Your task to perform on an android device: turn pop-ups off in chrome Image 0: 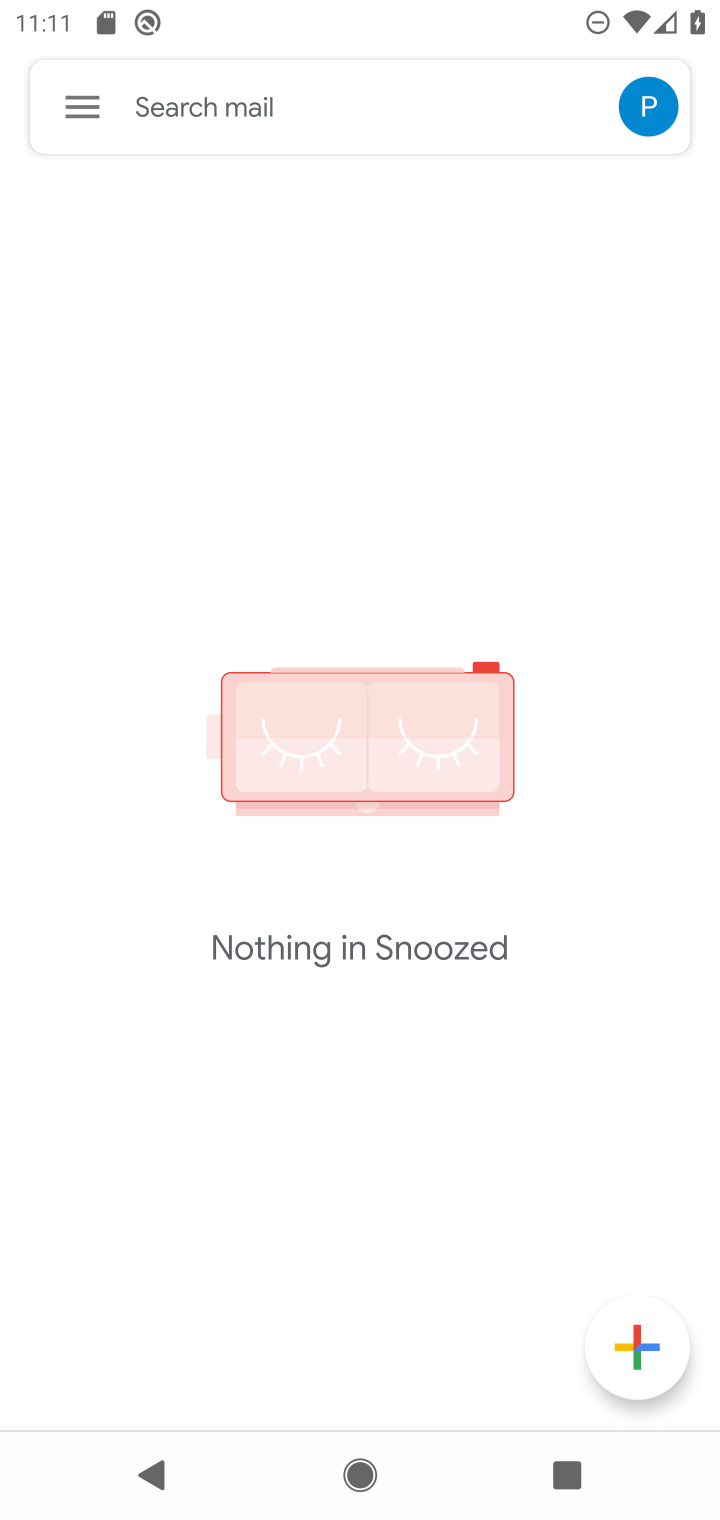
Step 0: press home button
Your task to perform on an android device: turn pop-ups off in chrome Image 1: 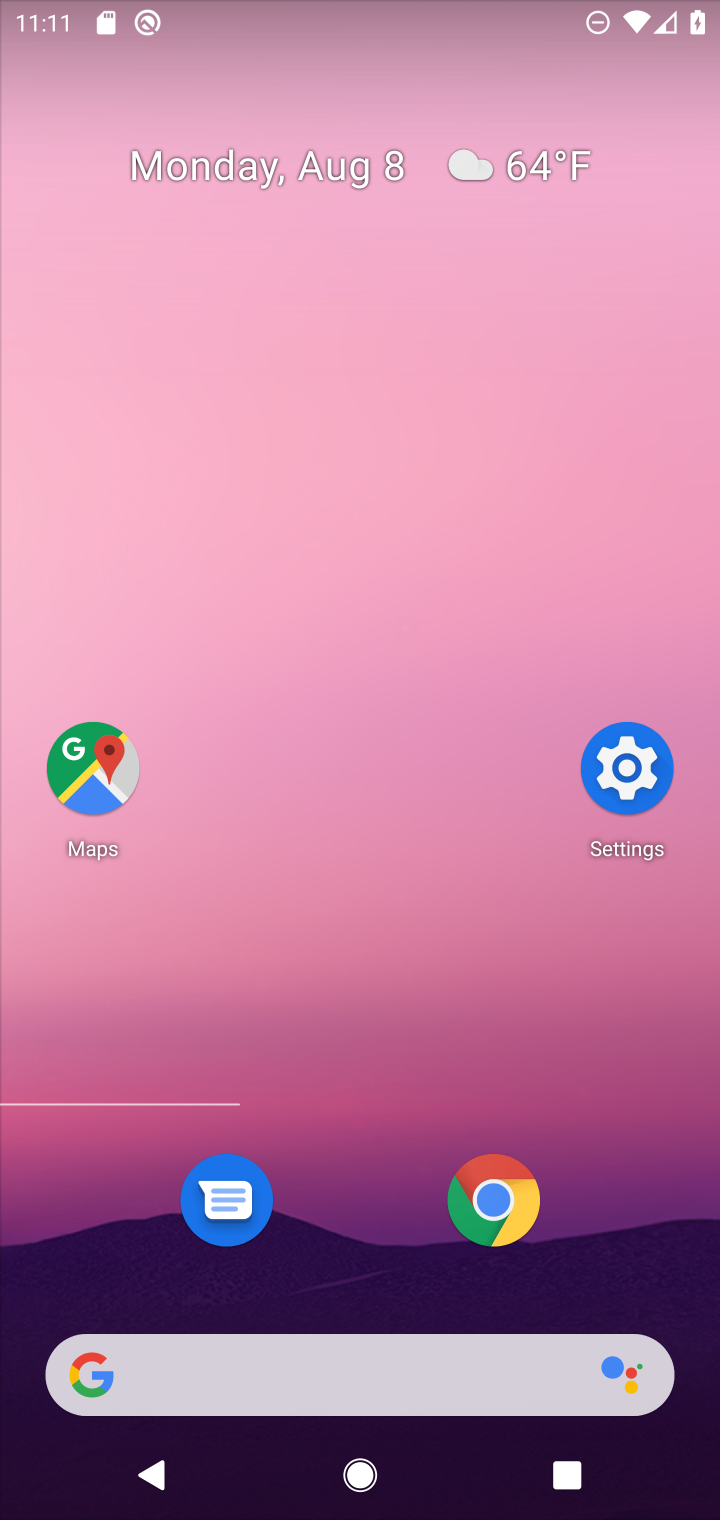
Step 1: click (491, 1190)
Your task to perform on an android device: turn pop-ups off in chrome Image 2: 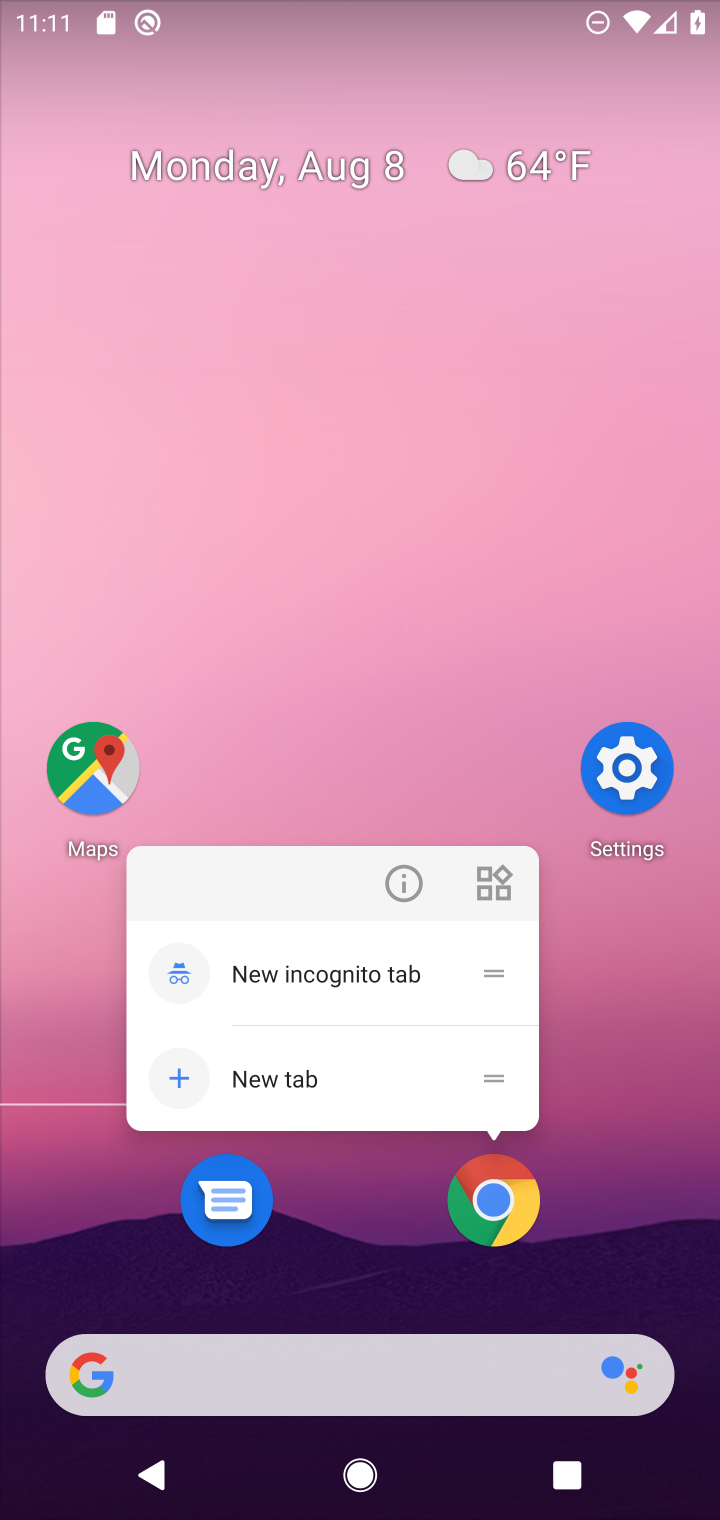
Step 2: click (491, 1197)
Your task to perform on an android device: turn pop-ups off in chrome Image 3: 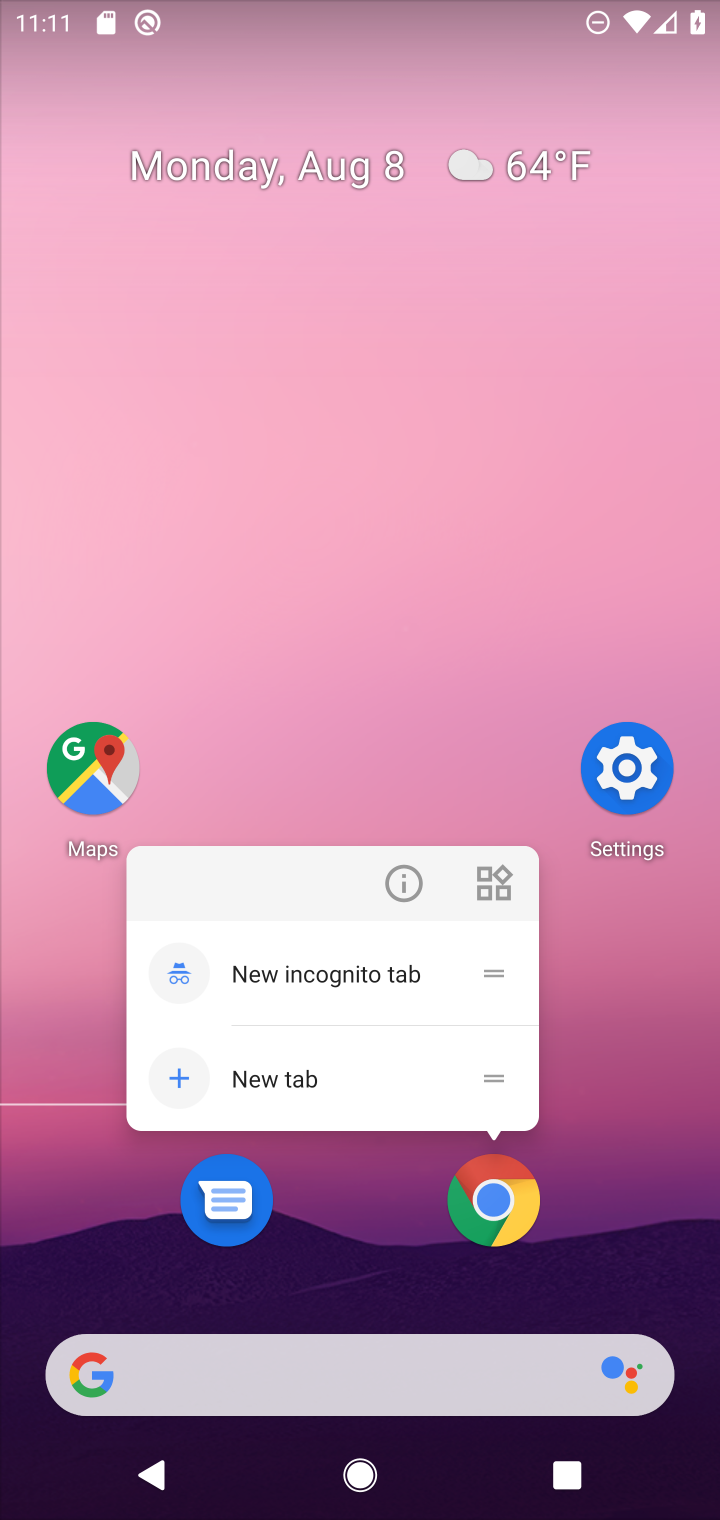
Step 3: click (491, 1195)
Your task to perform on an android device: turn pop-ups off in chrome Image 4: 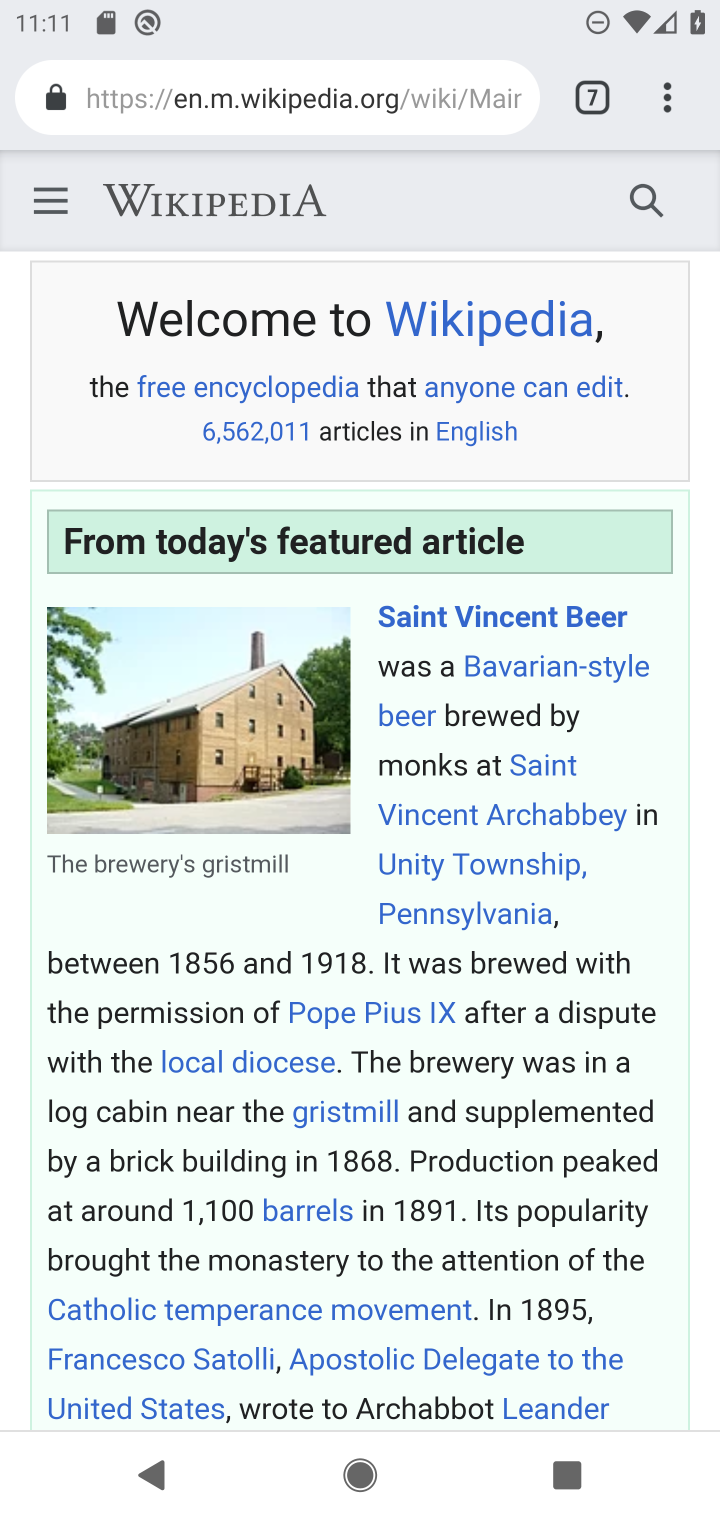
Step 4: drag from (659, 92) to (449, 1299)
Your task to perform on an android device: turn pop-ups off in chrome Image 5: 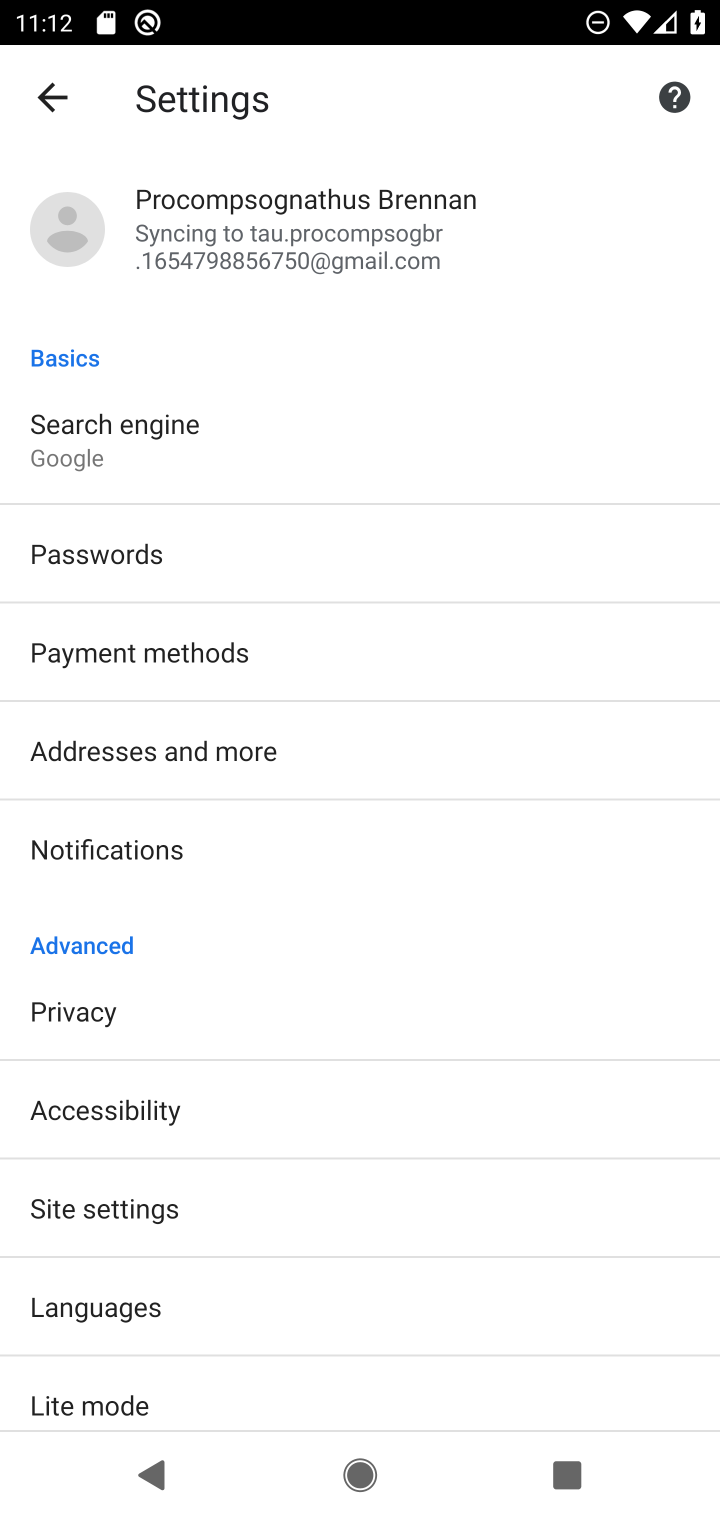
Step 5: click (158, 1199)
Your task to perform on an android device: turn pop-ups off in chrome Image 6: 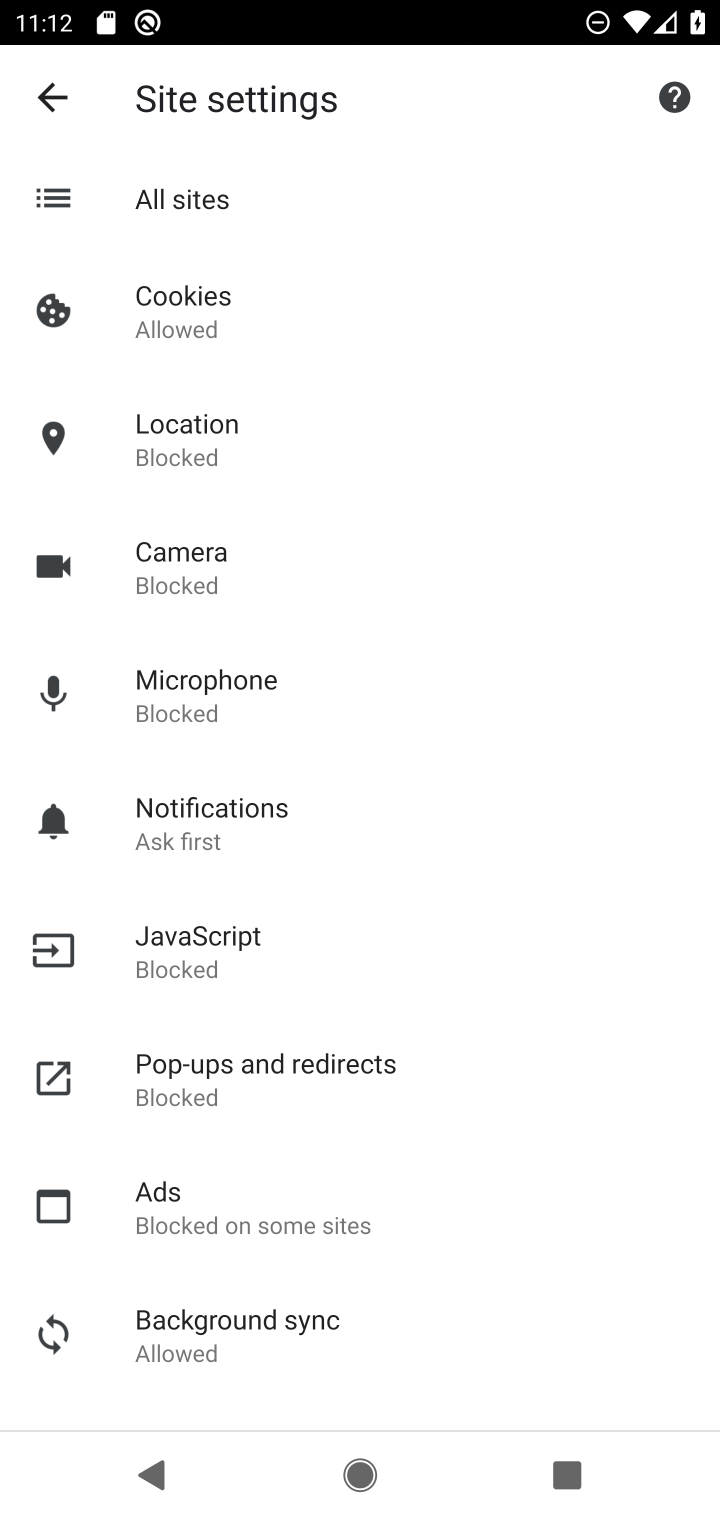
Step 6: click (205, 1068)
Your task to perform on an android device: turn pop-ups off in chrome Image 7: 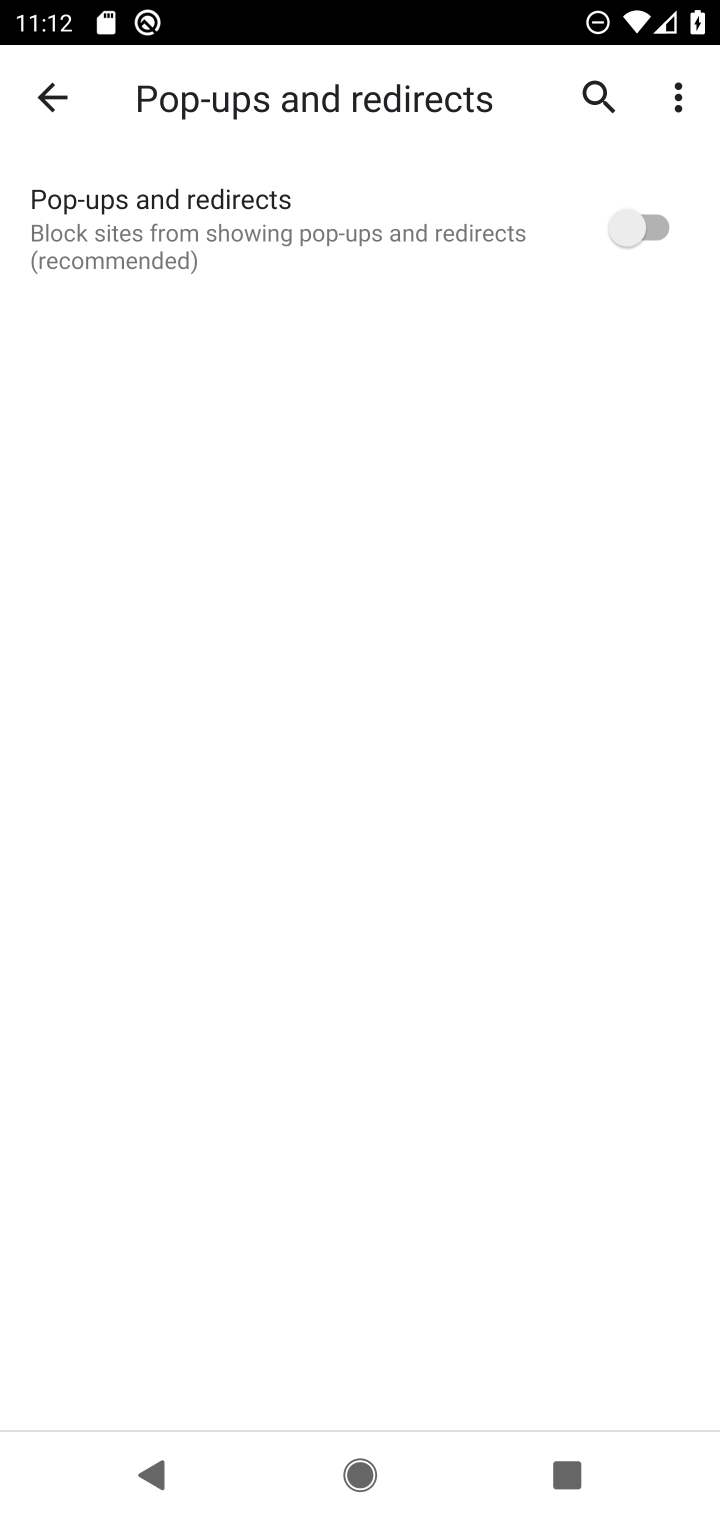
Step 7: task complete